Your task to perform on an android device: Go to Wikipedia Image 0: 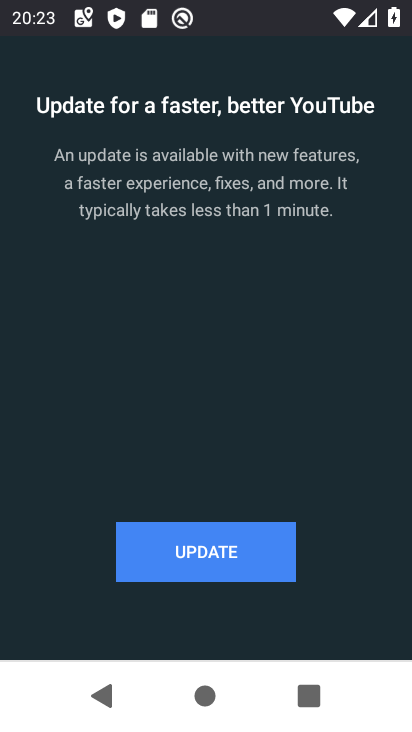
Step 0: click (258, 494)
Your task to perform on an android device: Go to Wikipedia Image 1: 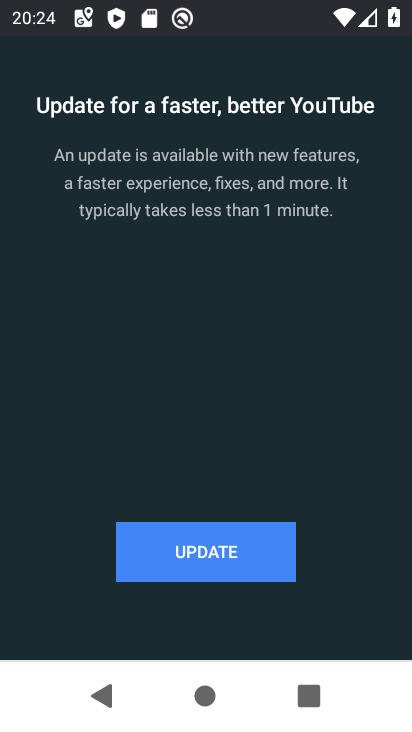
Step 1: press home button
Your task to perform on an android device: Go to Wikipedia Image 2: 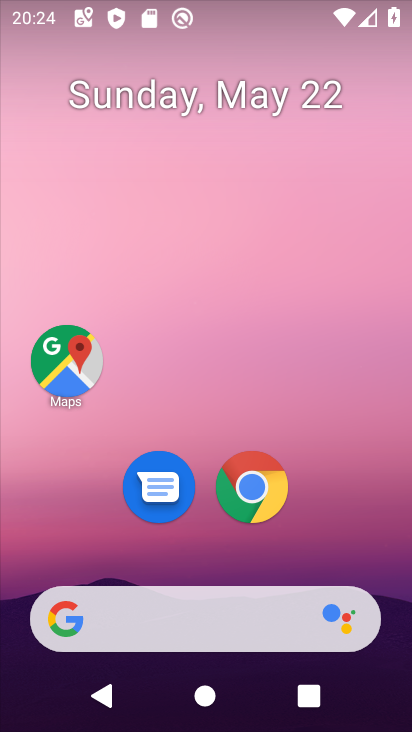
Step 2: click (259, 490)
Your task to perform on an android device: Go to Wikipedia Image 3: 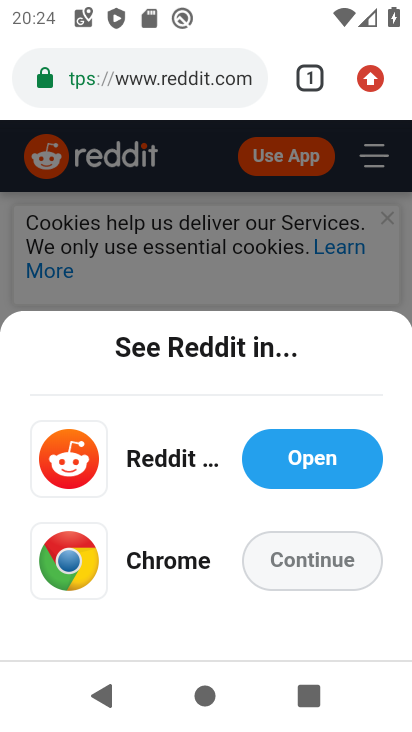
Step 3: click (365, 67)
Your task to perform on an android device: Go to Wikipedia Image 4: 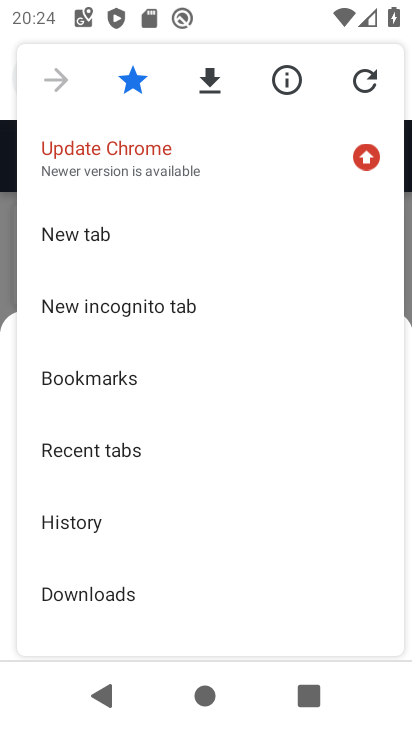
Step 4: click (53, 73)
Your task to perform on an android device: Go to Wikipedia Image 5: 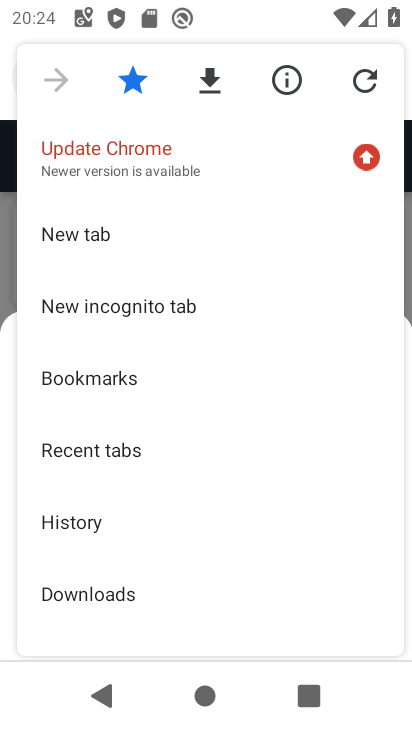
Step 5: press back button
Your task to perform on an android device: Go to Wikipedia Image 6: 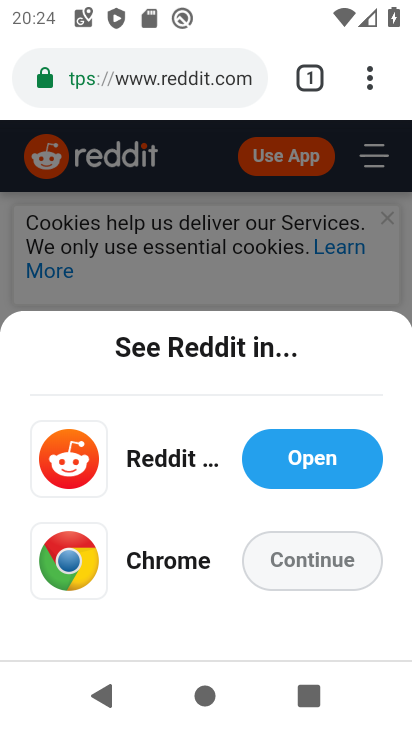
Step 6: click (376, 75)
Your task to perform on an android device: Go to Wikipedia Image 7: 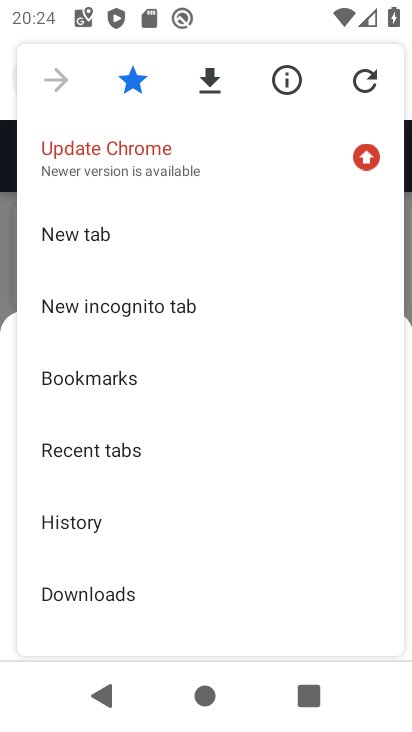
Step 7: click (172, 225)
Your task to perform on an android device: Go to Wikipedia Image 8: 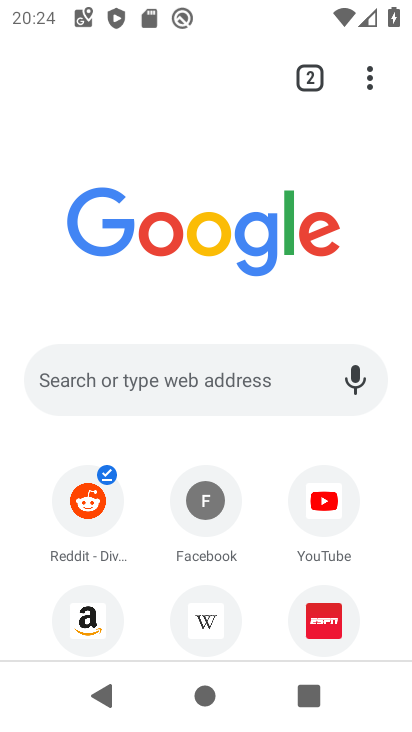
Step 8: click (196, 626)
Your task to perform on an android device: Go to Wikipedia Image 9: 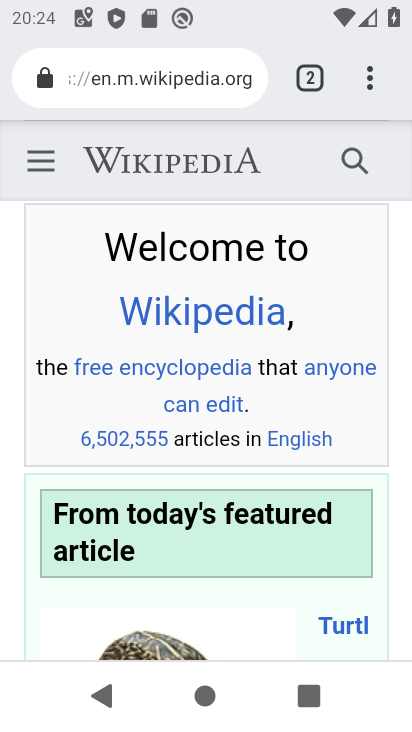
Step 9: task complete